Your task to perform on an android device: turn on the 24-hour format for clock Image 0: 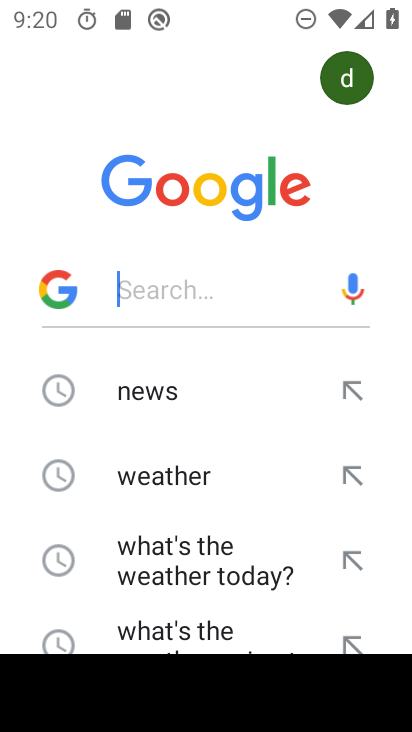
Step 0: press home button
Your task to perform on an android device: turn on the 24-hour format for clock Image 1: 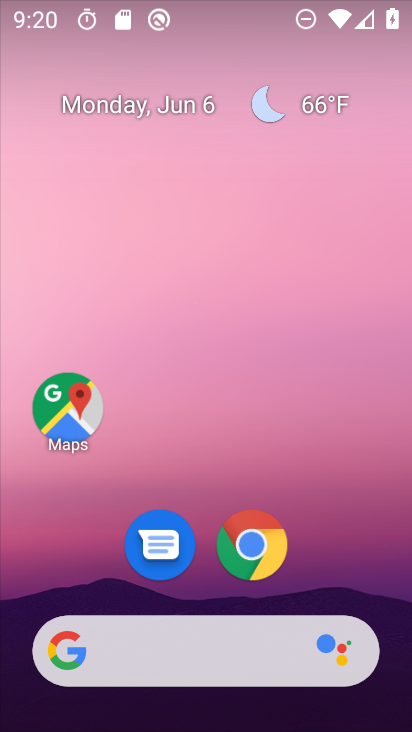
Step 1: drag from (204, 585) to (182, 73)
Your task to perform on an android device: turn on the 24-hour format for clock Image 2: 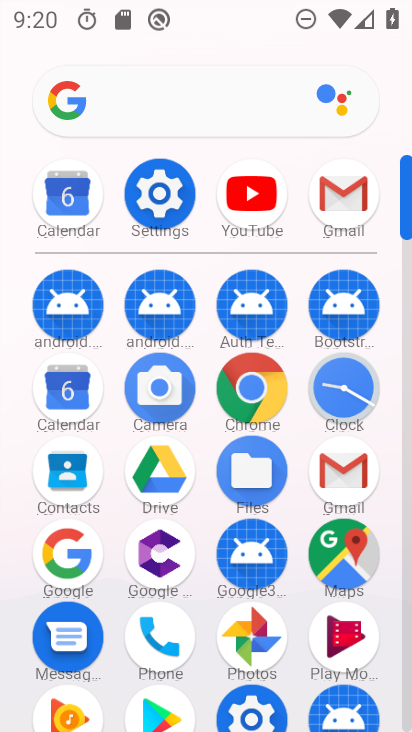
Step 2: click (148, 212)
Your task to perform on an android device: turn on the 24-hour format for clock Image 3: 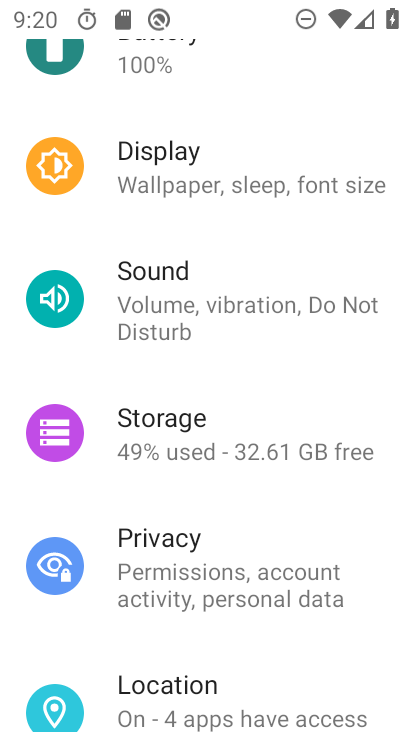
Step 3: drag from (218, 626) to (257, 298)
Your task to perform on an android device: turn on the 24-hour format for clock Image 4: 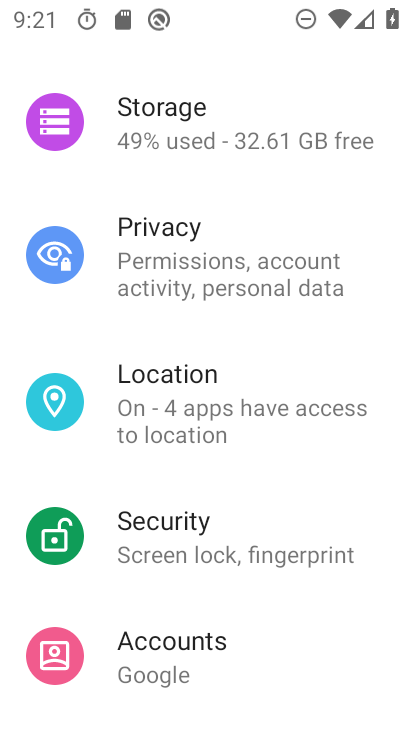
Step 4: click (287, 219)
Your task to perform on an android device: turn on the 24-hour format for clock Image 5: 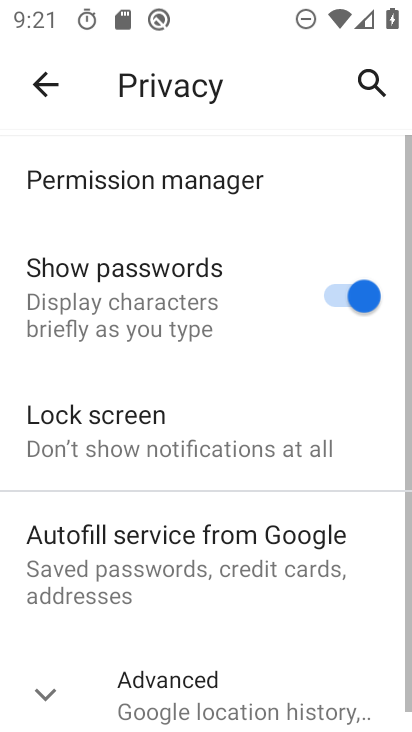
Step 5: drag from (201, 630) to (231, 526)
Your task to perform on an android device: turn on the 24-hour format for clock Image 6: 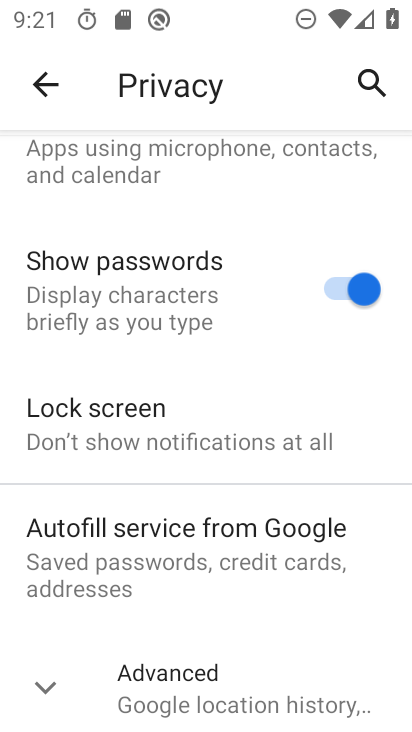
Step 6: click (51, 85)
Your task to perform on an android device: turn on the 24-hour format for clock Image 7: 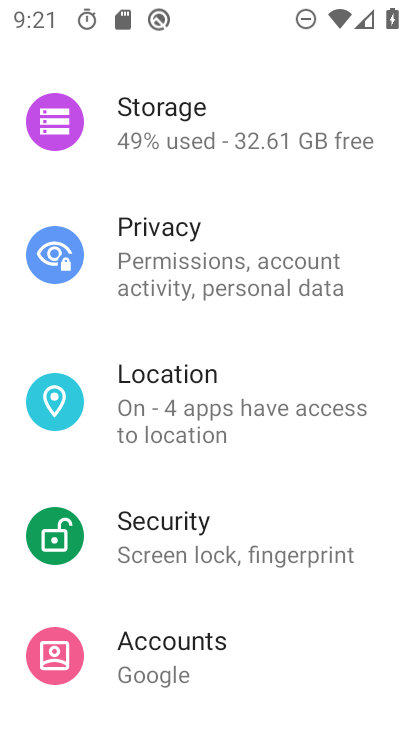
Step 7: drag from (170, 626) to (257, 254)
Your task to perform on an android device: turn on the 24-hour format for clock Image 8: 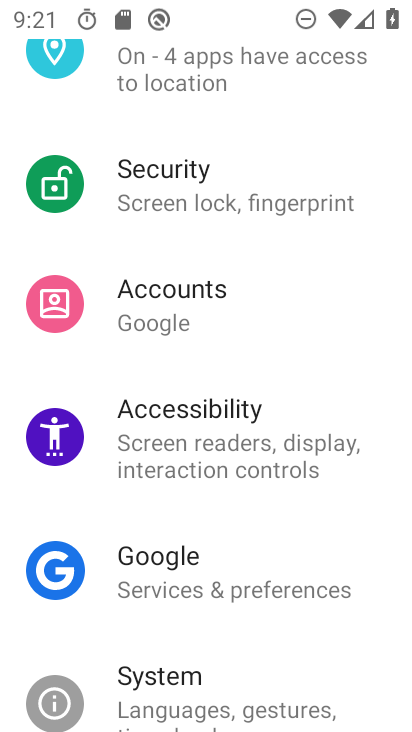
Step 8: click (190, 694)
Your task to perform on an android device: turn on the 24-hour format for clock Image 9: 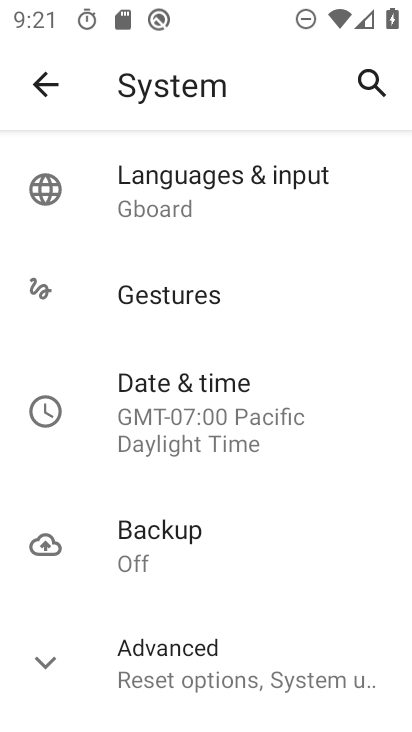
Step 9: click (215, 412)
Your task to perform on an android device: turn on the 24-hour format for clock Image 10: 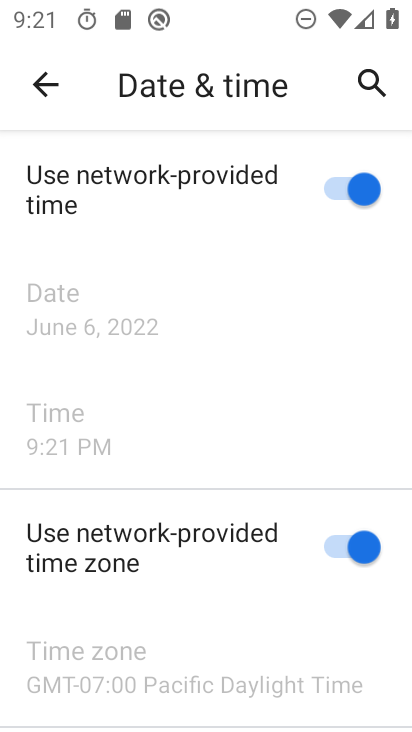
Step 10: click (214, 412)
Your task to perform on an android device: turn on the 24-hour format for clock Image 11: 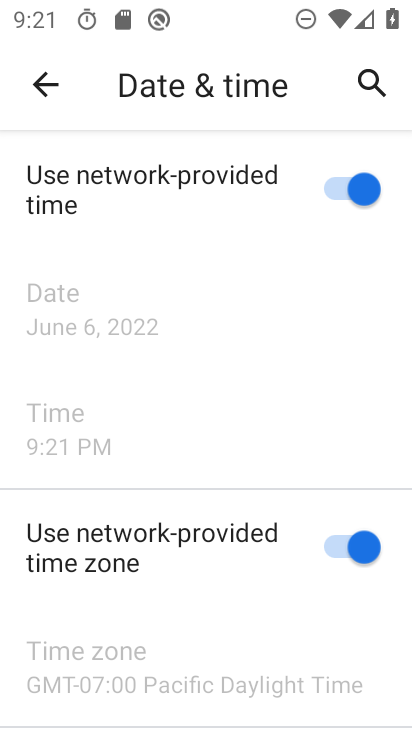
Step 11: drag from (198, 605) to (252, 0)
Your task to perform on an android device: turn on the 24-hour format for clock Image 12: 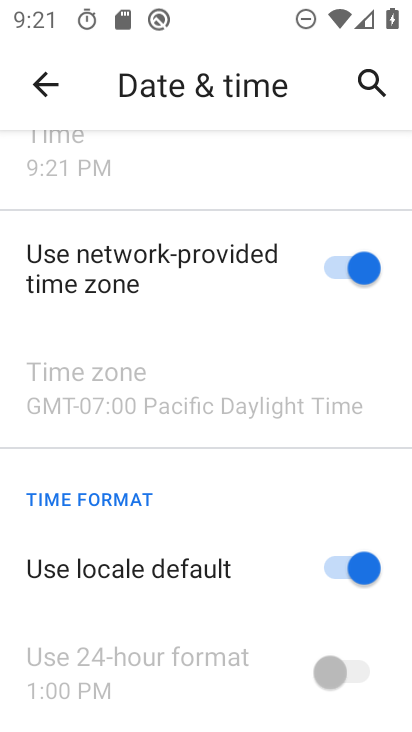
Step 12: click (326, 554)
Your task to perform on an android device: turn on the 24-hour format for clock Image 13: 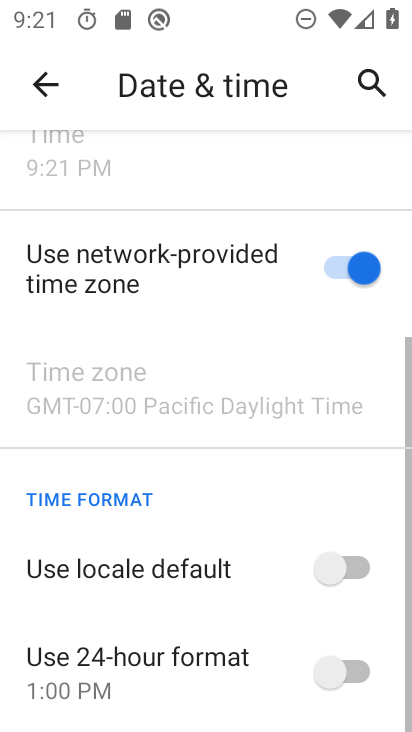
Step 13: click (368, 673)
Your task to perform on an android device: turn on the 24-hour format for clock Image 14: 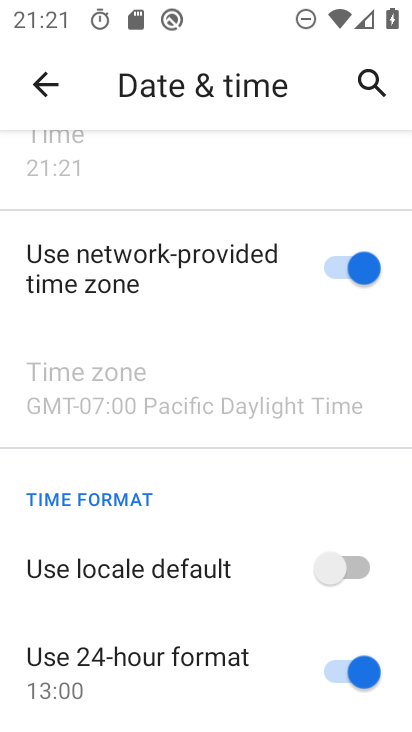
Step 14: task complete